Your task to perform on an android device: turn off location history Image 0: 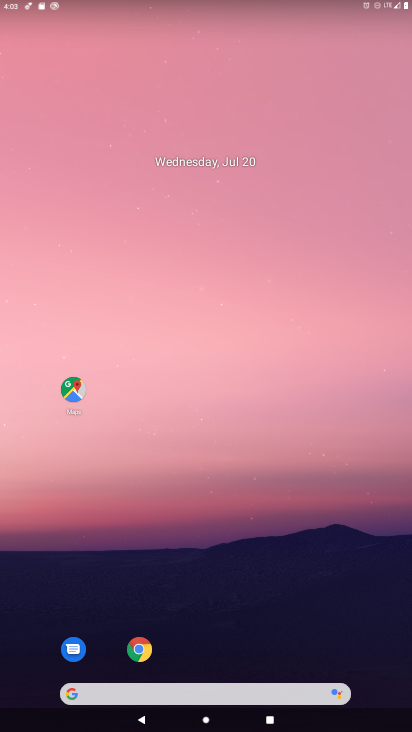
Step 0: drag from (188, 691) to (359, 86)
Your task to perform on an android device: turn off location history Image 1: 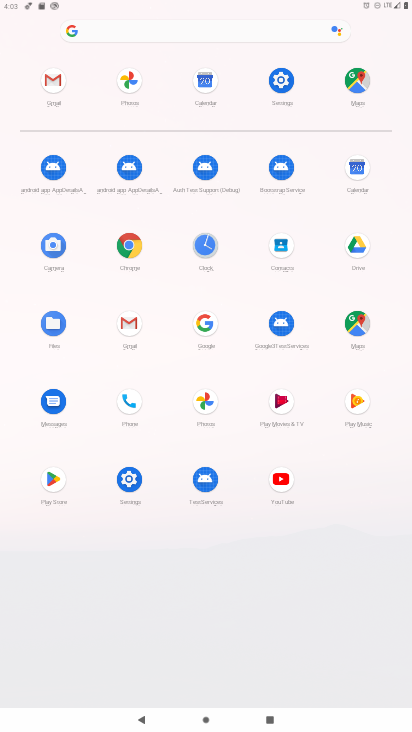
Step 1: click (130, 480)
Your task to perform on an android device: turn off location history Image 2: 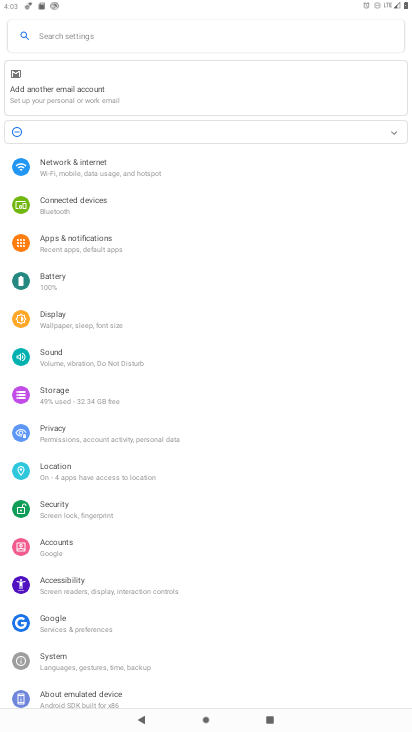
Step 2: click (49, 473)
Your task to perform on an android device: turn off location history Image 3: 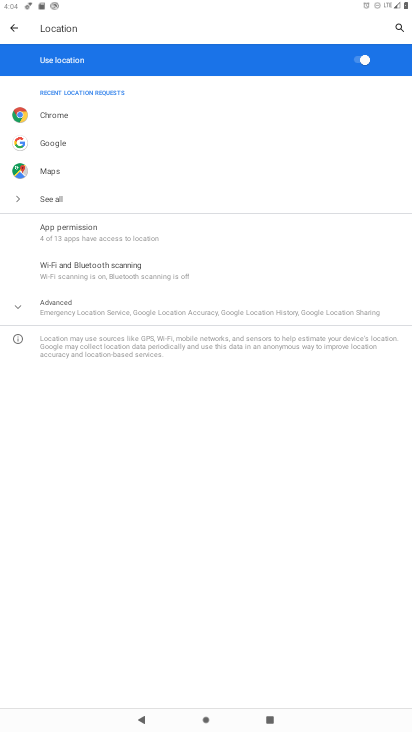
Step 3: click (126, 311)
Your task to perform on an android device: turn off location history Image 4: 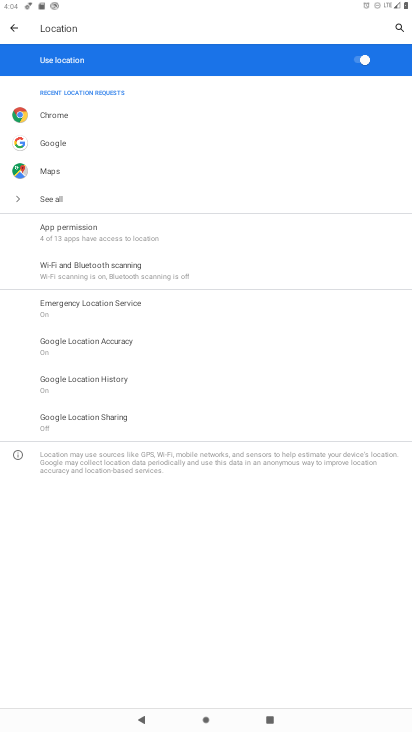
Step 4: click (114, 378)
Your task to perform on an android device: turn off location history Image 5: 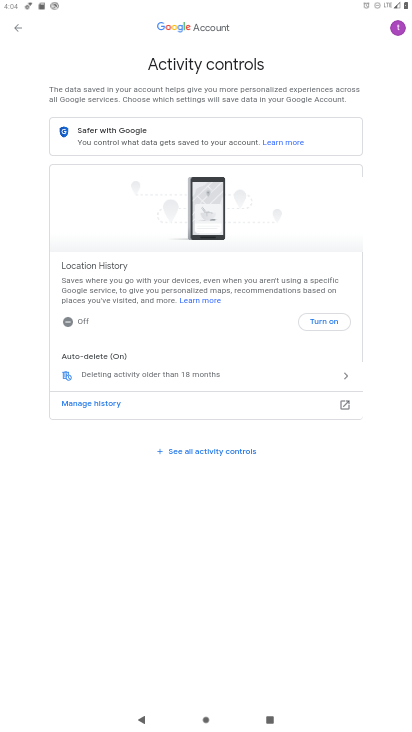
Step 5: task complete